Your task to perform on an android device: Go to wifi settings Image 0: 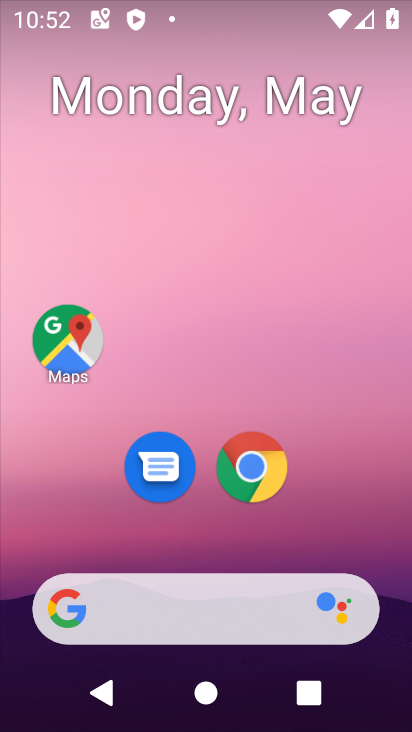
Step 0: drag from (391, 691) to (367, 193)
Your task to perform on an android device: Go to wifi settings Image 1: 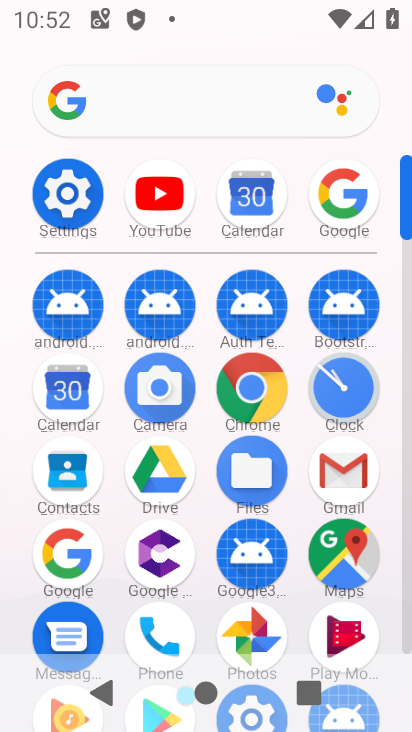
Step 1: click (82, 196)
Your task to perform on an android device: Go to wifi settings Image 2: 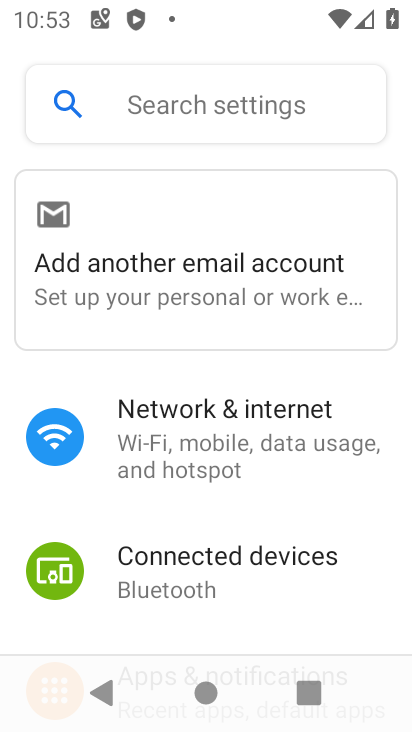
Step 2: drag from (211, 622) to (227, 266)
Your task to perform on an android device: Go to wifi settings Image 3: 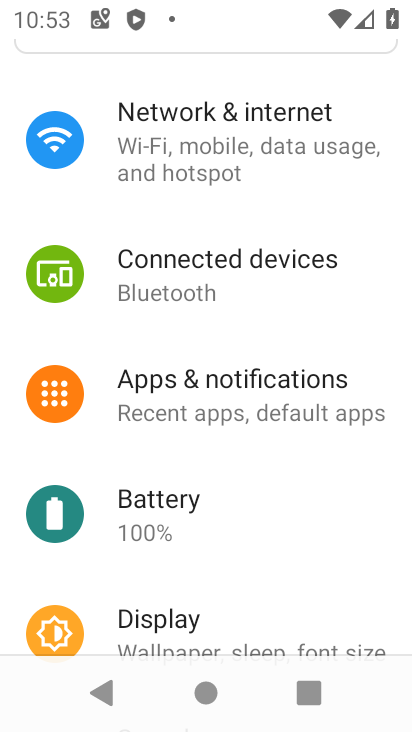
Step 3: drag from (234, 617) to (244, 310)
Your task to perform on an android device: Go to wifi settings Image 4: 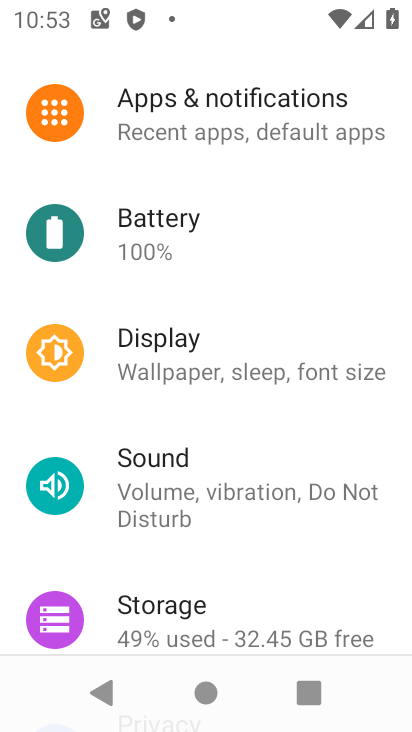
Step 4: drag from (250, 608) to (274, 380)
Your task to perform on an android device: Go to wifi settings Image 5: 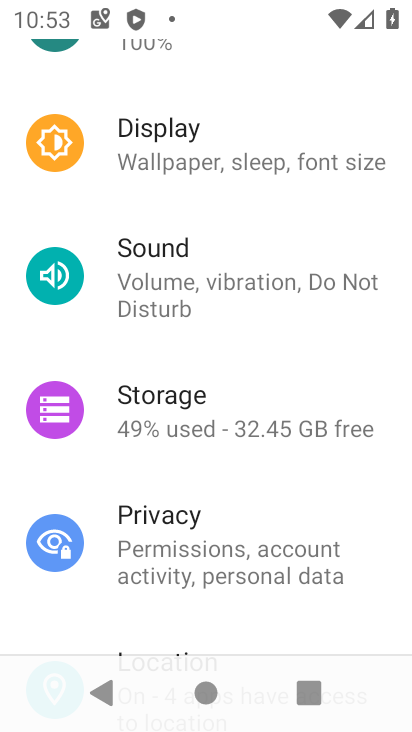
Step 5: drag from (301, 137) to (312, 609)
Your task to perform on an android device: Go to wifi settings Image 6: 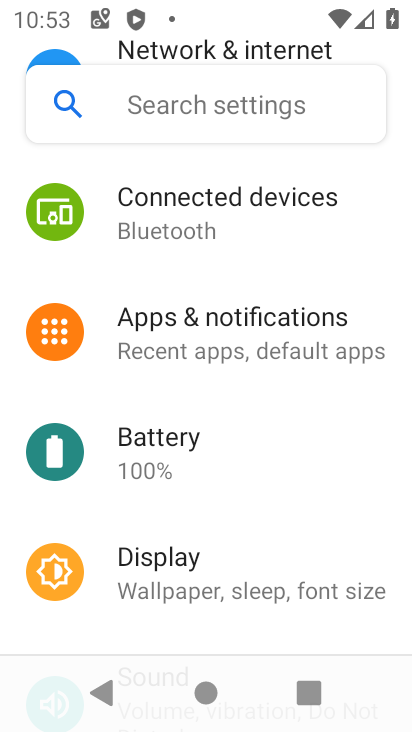
Step 6: drag from (301, 177) to (308, 671)
Your task to perform on an android device: Go to wifi settings Image 7: 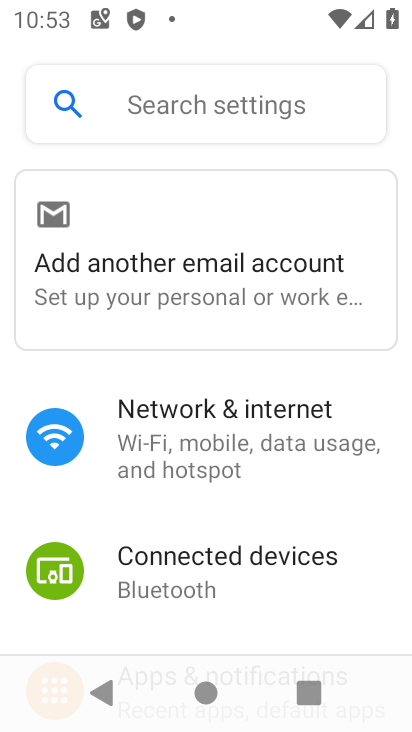
Step 7: click (201, 417)
Your task to perform on an android device: Go to wifi settings Image 8: 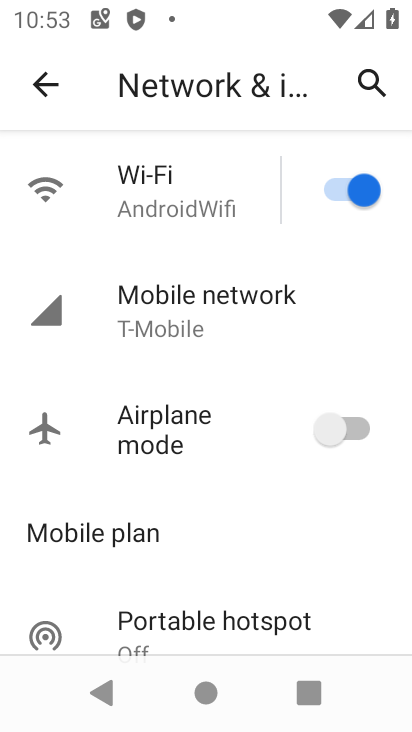
Step 8: click (195, 198)
Your task to perform on an android device: Go to wifi settings Image 9: 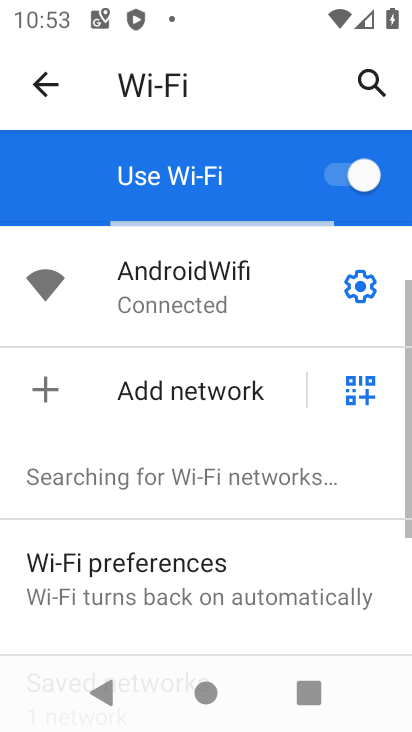
Step 9: click (358, 286)
Your task to perform on an android device: Go to wifi settings Image 10: 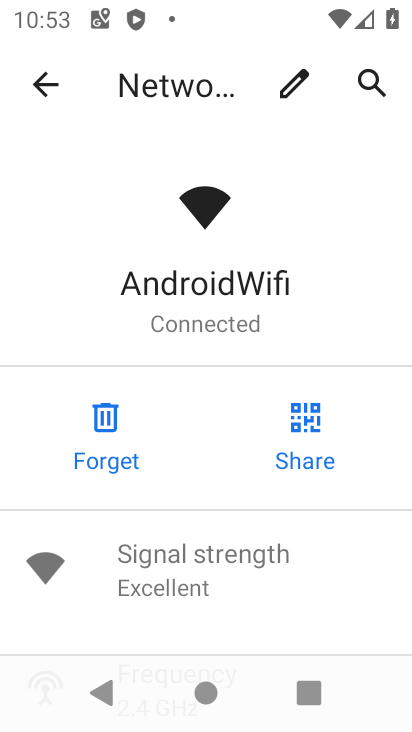
Step 10: drag from (304, 607) to (316, 259)
Your task to perform on an android device: Go to wifi settings Image 11: 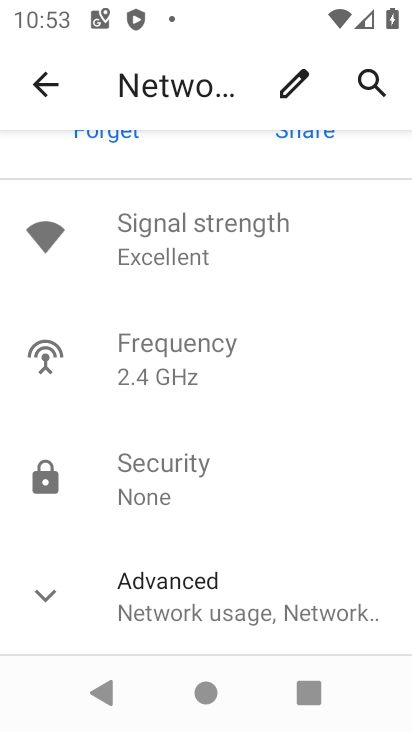
Step 11: drag from (327, 524) to (333, 313)
Your task to perform on an android device: Go to wifi settings Image 12: 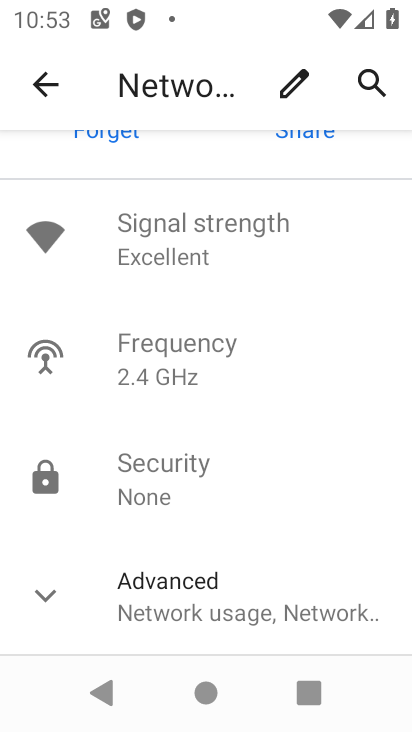
Step 12: click (48, 599)
Your task to perform on an android device: Go to wifi settings Image 13: 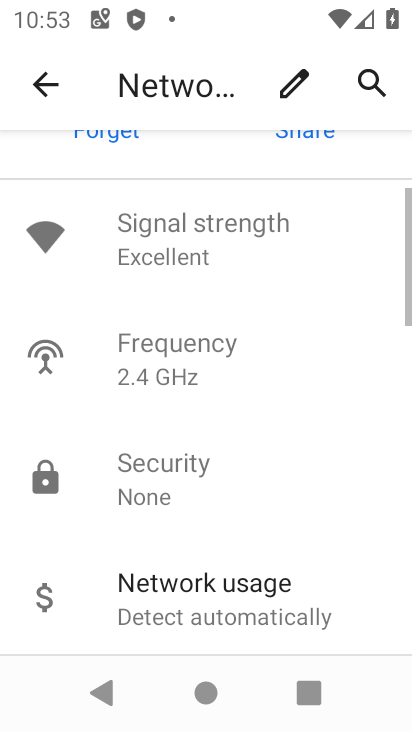
Step 13: task complete